Your task to perform on an android device: add a contact in the contacts app Image 0: 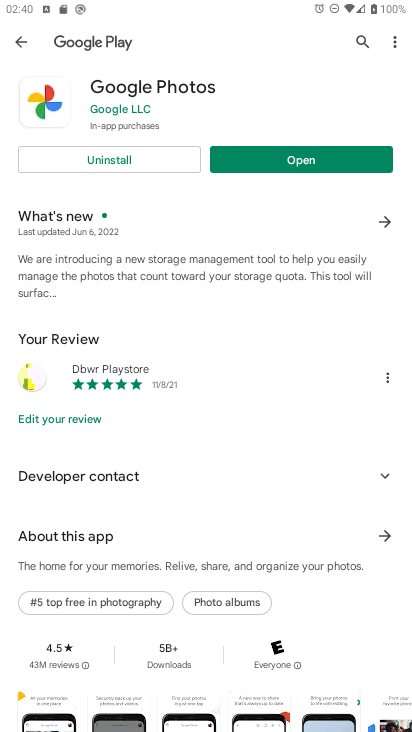
Step 0: press home button
Your task to perform on an android device: add a contact in the contacts app Image 1: 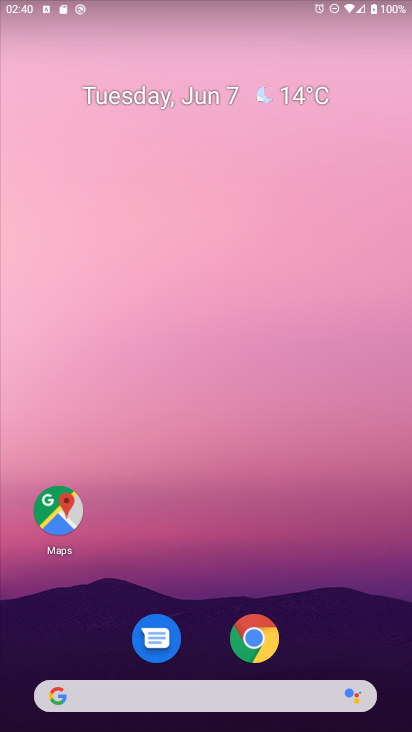
Step 1: drag from (212, 715) to (179, 122)
Your task to perform on an android device: add a contact in the contacts app Image 2: 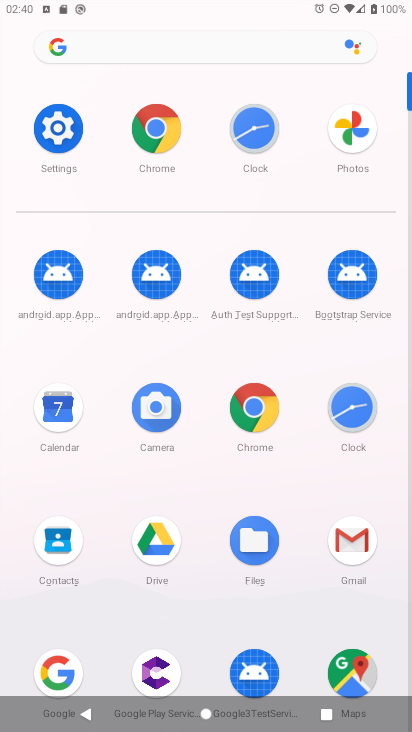
Step 2: drag from (213, 585) to (207, 326)
Your task to perform on an android device: add a contact in the contacts app Image 3: 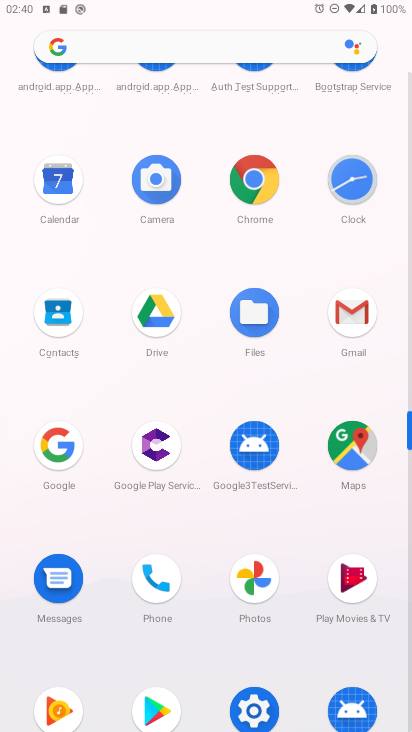
Step 3: click (160, 588)
Your task to perform on an android device: add a contact in the contacts app Image 4: 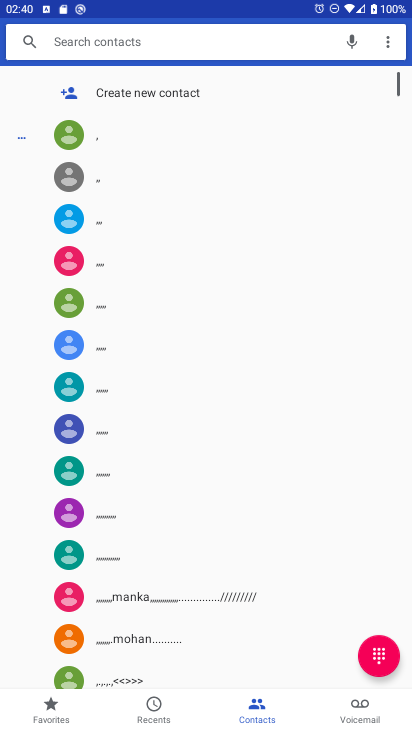
Step 4: click (105, 92)
Your task to perform on an android device: add a contact in the contacts app Image 5: 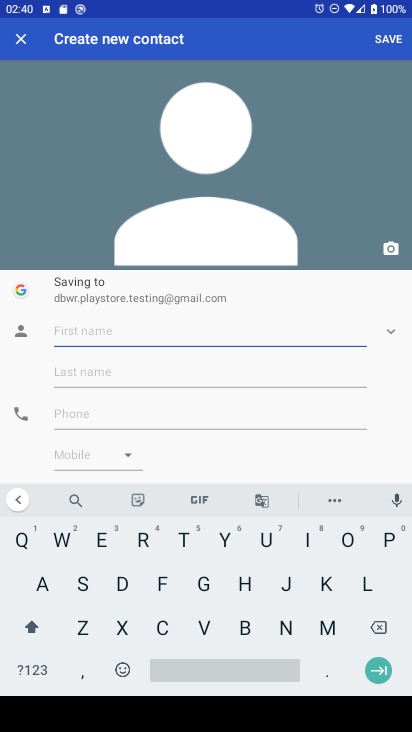
Step 5: click (187, 580)
Your task to perform on an android device: add a contact in the contacts app Image 6: 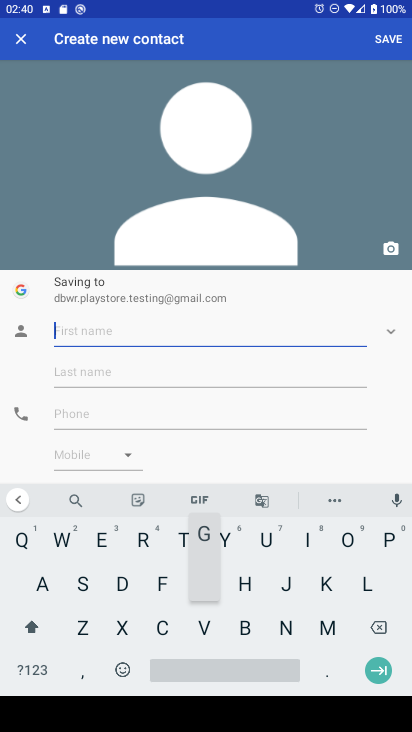
Step 6: click (287, 568)
Your task to perform on an android device: add a contact in the contacts app Image 7: 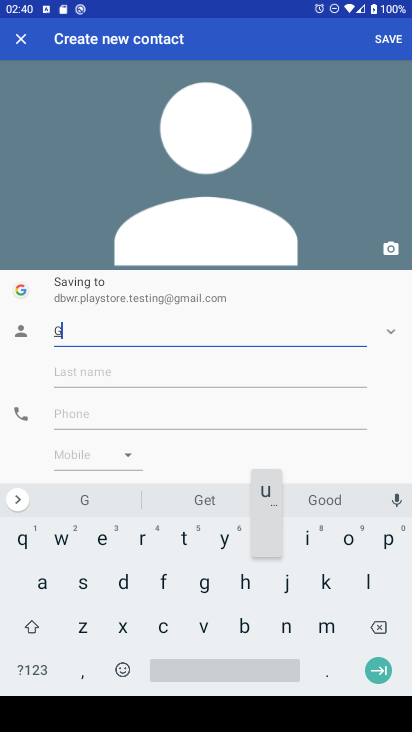
Step 7: click (240, 604)
Your task to perform on an android device: add a contact in the contacts app Image 8: 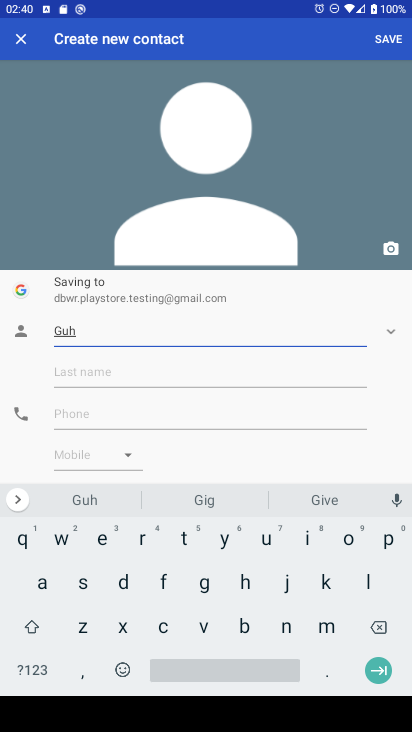
Step 8: click (93, 420)
Your task to perform on an android device: add a contact in the contacts app Image 9: 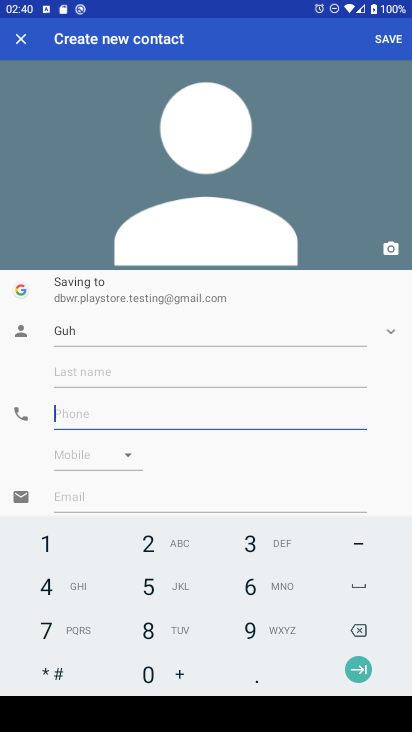
Step 9: click (116, 581)
Your task to perform on an android device: add a contact in the contacts app Image 10: 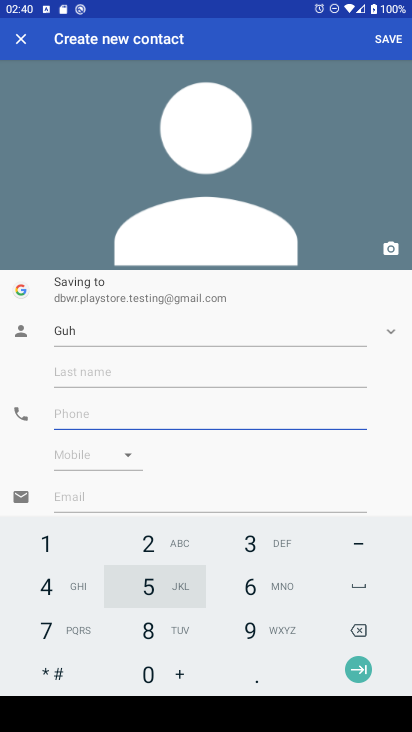
Step 10: click (62, 597)
Your task to perform on an android device: add a contact in the contacts app Image 11: 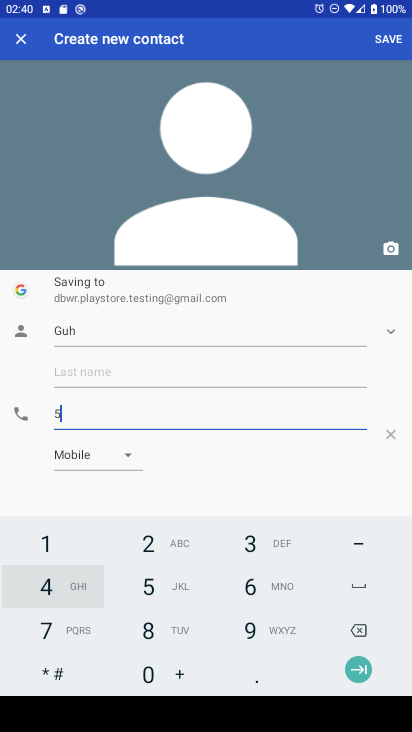
Step 11: click (189, 596)
Your task to perform on an android device: add a contact in the contacts app Image 12: 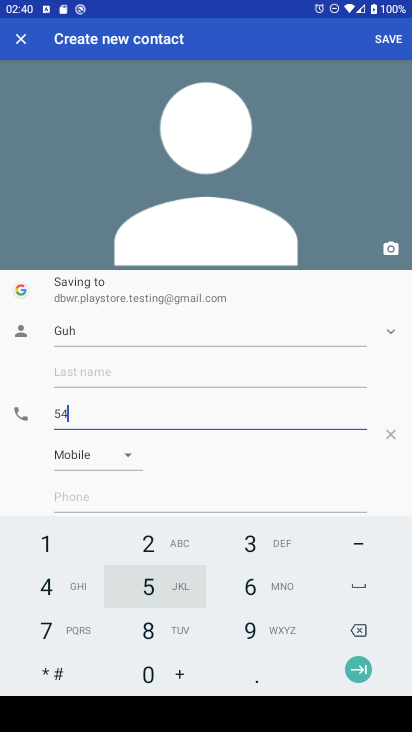
Step 12: click (220, 590)
Your task to perform on an android device: add a contact in the contacts app Image 13: 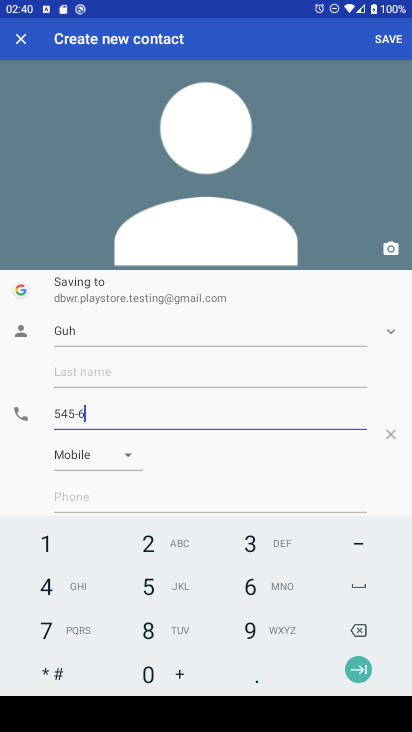
Step 13: drag from (179, 603) to (176, 639)
Your task to perform on an android device: add a contact in the contacts app Image 14: 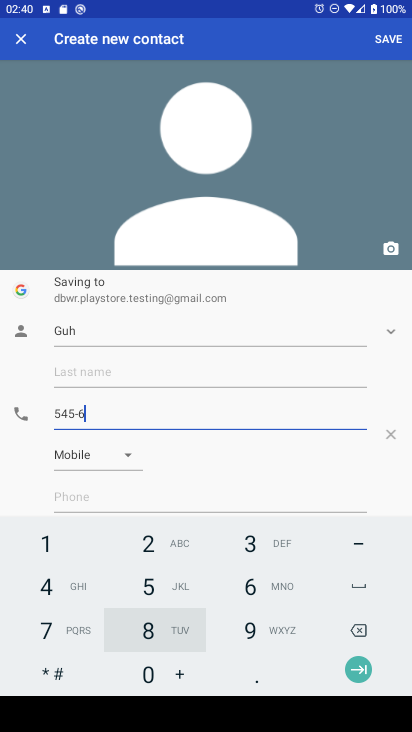
Step 14: click (159, 647)
Your task to perform on an android device: add a contact in the contacts app Image 15: 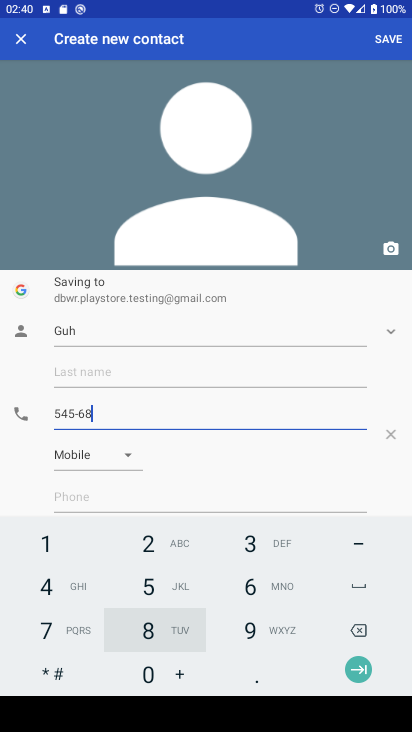
Step 15: click (143, 692)
Your task to perform on an android device: add a contact in the contacts app Image 16: 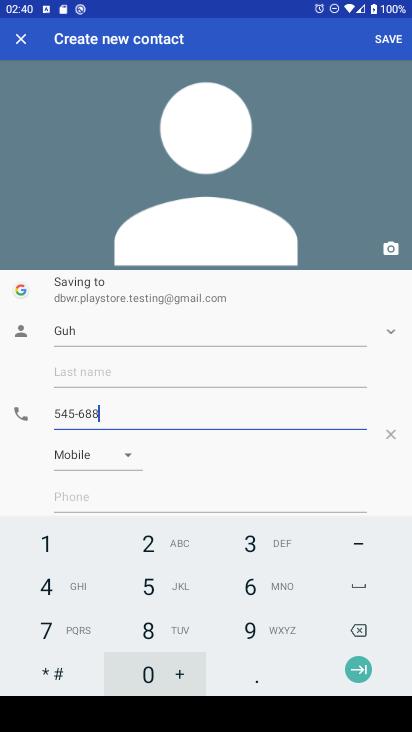
Step 16: click (155, 660)
Your task to perform on an android device: add a contact in the contacts app Image 17: 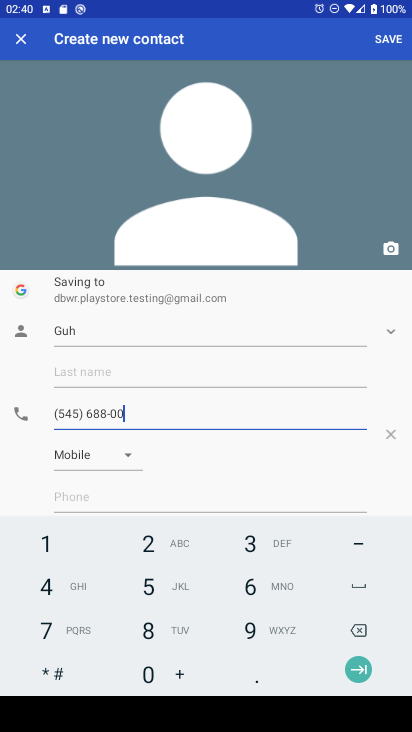
Step 17: click (147, 669)
Your task to perform on an android device: add a contact in the contacts app Image 18: 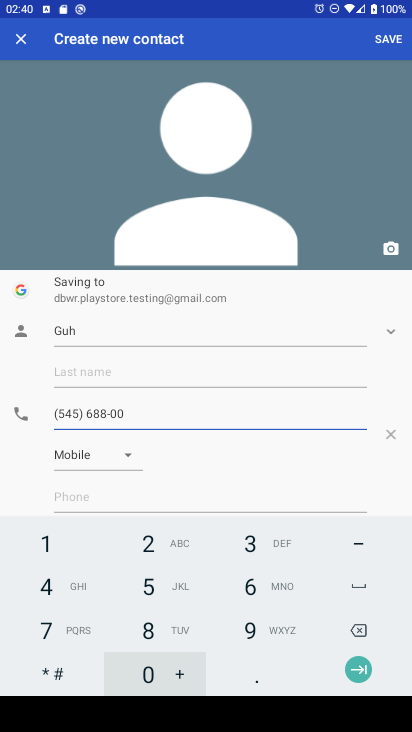
Step 18: click (142, 514)
Your task to perform on an android device: add a contact in the contacts app Image 19: 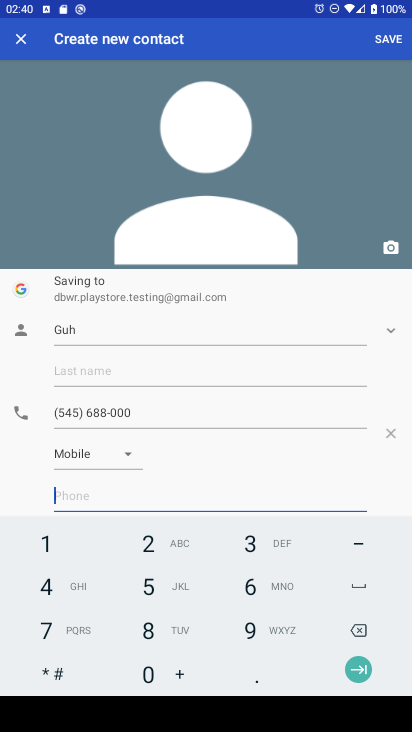
Step 19: click (390, 27)
Your task to perform on an android device: add a contact in the contacts app Image 20: 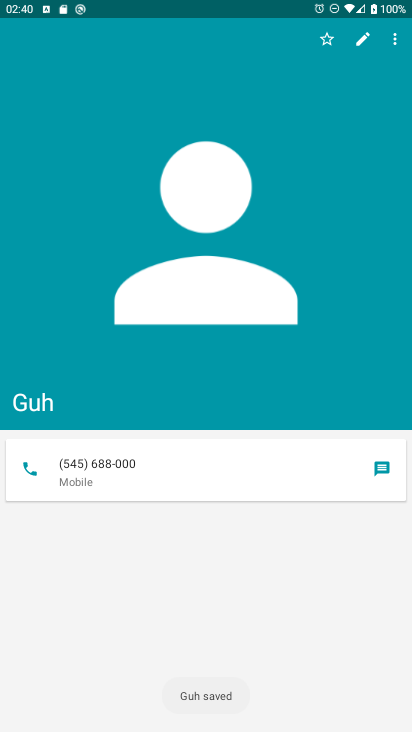
Step 20: task complete